Your task to perform on an android device: turn on translation in the chrome app Image 0: 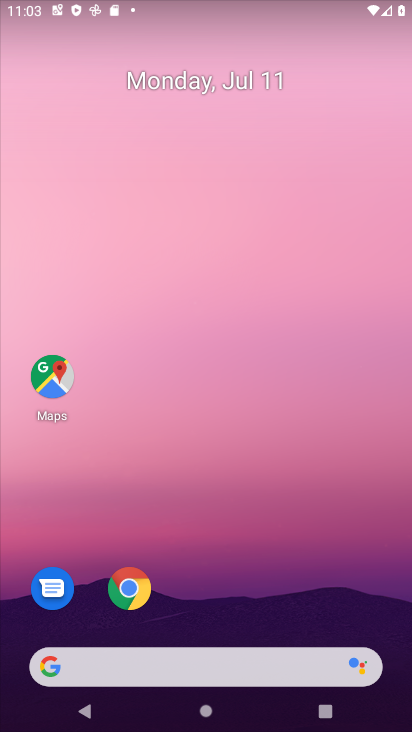
Step 0: click (124, 587)
Your task to perform on an android device: turn on translation in the chrome app Image 1: 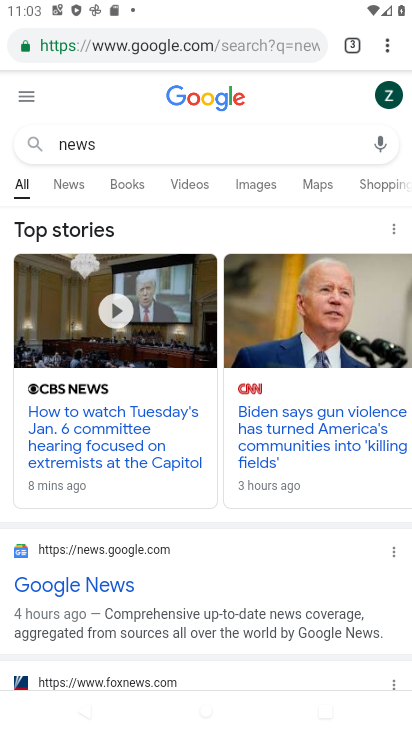
Step 1: click (391, 37)
Your task to perform on an android device: turn on translation in the chrome app Image 2: 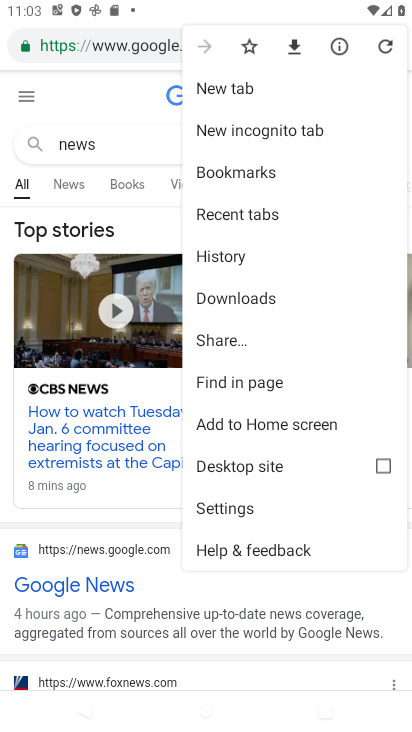
Step 2: click (231, 507)
Your task to perform on an android device: turn on translation in the chrome app Image 3: 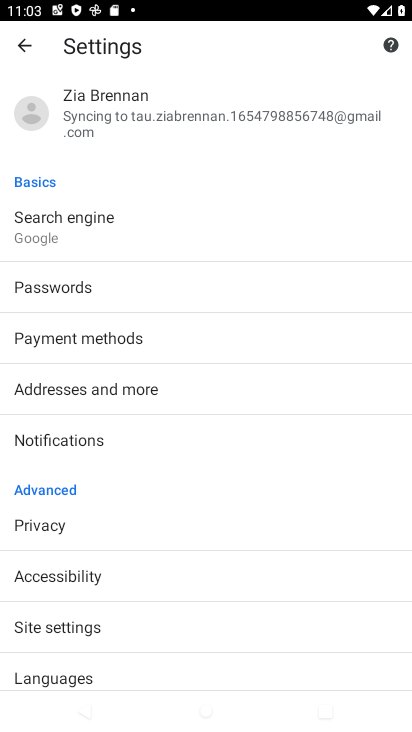
Step 3: click (49, 673)
Your task to perform on an android device: turn on translation in the chrome app Image 4: 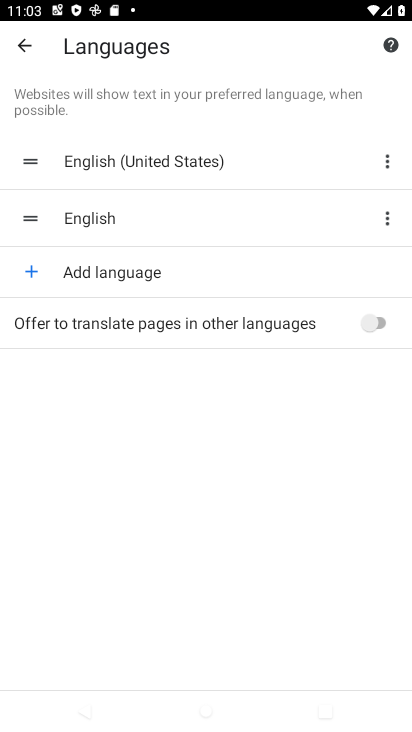
Step 4: click (376, 323)
Your task to perform on an android device: turn on translation in the chrome app Image 5: 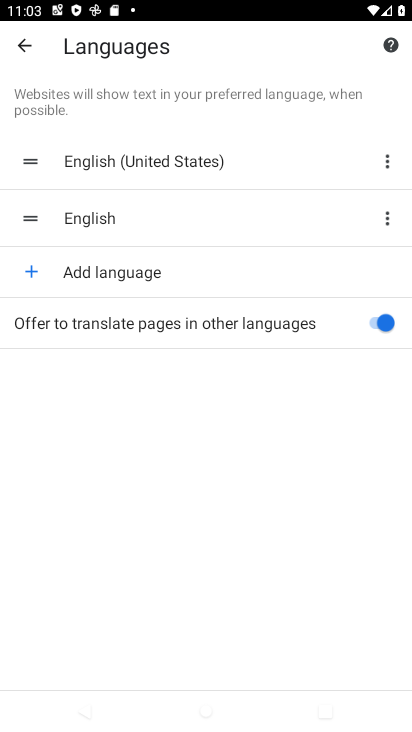
Step 5: task complete